Your task to perform on an android device: change timer sound Image 0: 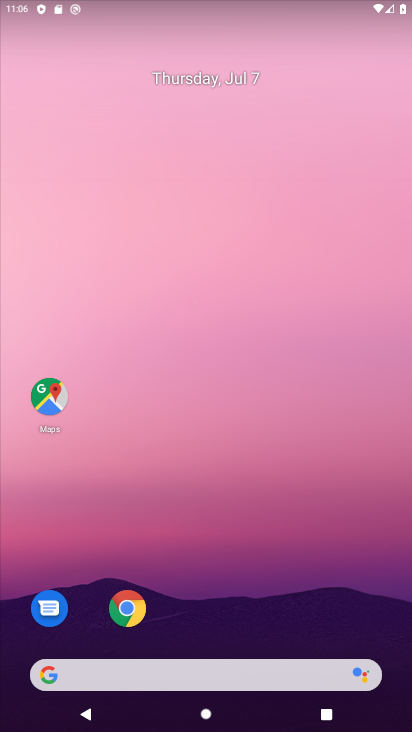
Step 0: drag from (3, 691) to (315, 74)
Your task to perform on an android device: change timer sound Image 1: 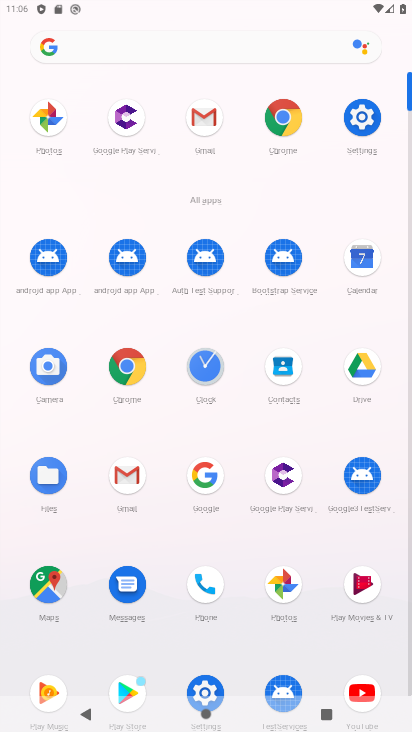
Step 1: click (206, 363)
Your task to perform on an android device: change timer sound Image 2: 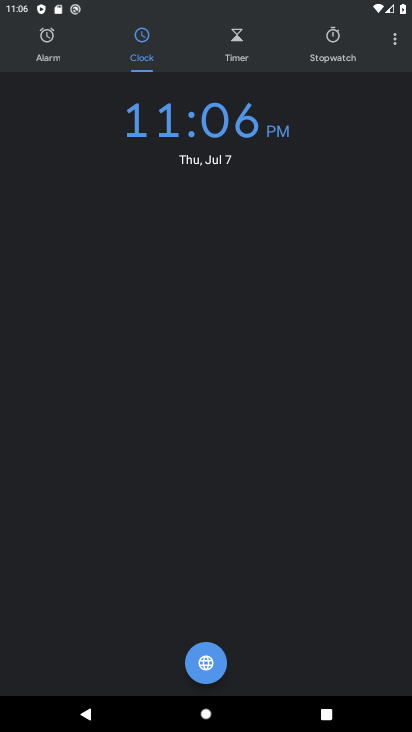
Step 2: click (392, 44)
Your task to perform on an android device: change timer sound Image 3: 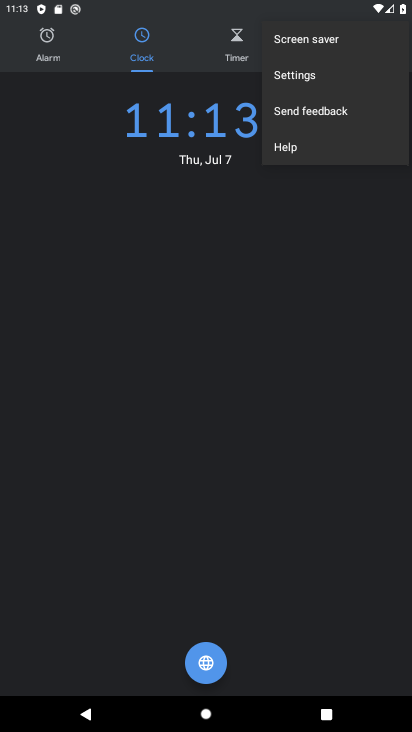
Step 3: task complete